Your task to perform on an android device: turn pop-ups off in chrome Image 0: 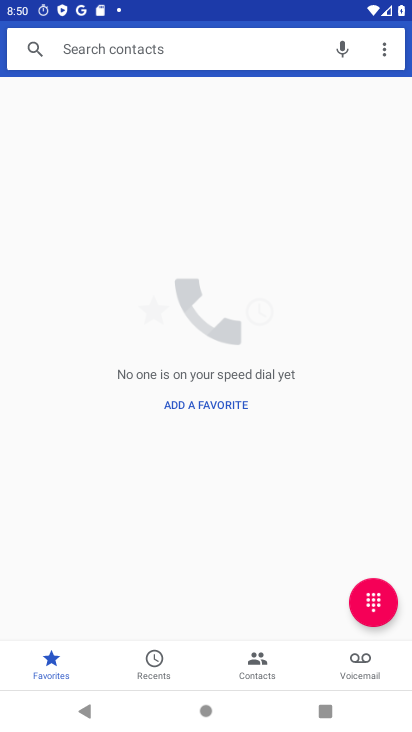
Step 0: press back button
Your task to perform on an android device: turn pop-ups off in chrome Image 1: 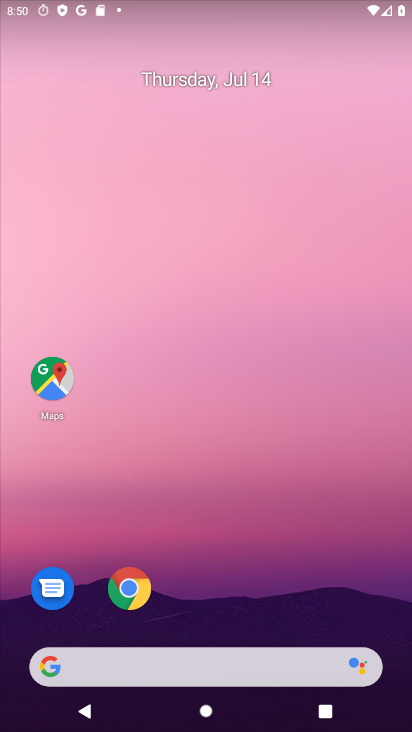
Step 1: drag from (278, 623) to (236, 240)
Your task to perform on an android device: turn pop-ups off in chrome Image 2: 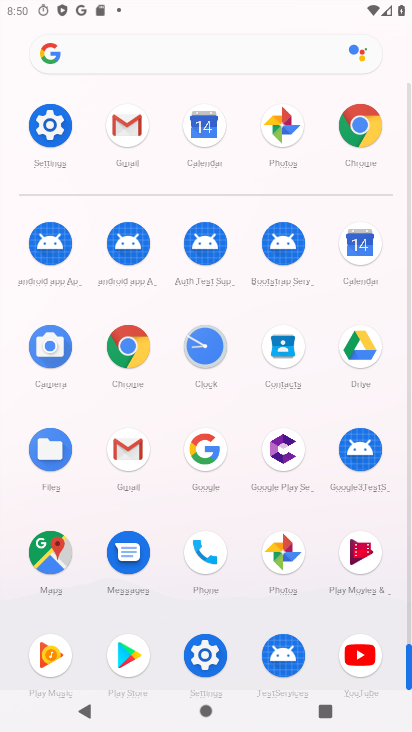
Step 2: click (340, 137)
Your task to perform on an android device: turn pop-ups off in chrome Image 3: 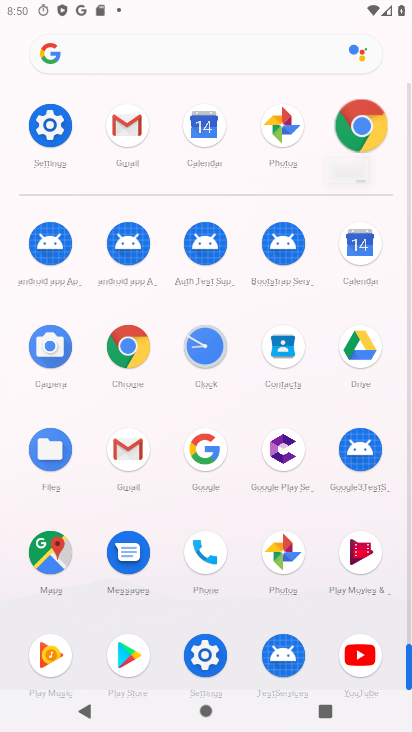
Step 3: click (351, 127)
Your task to perform on an android device: turn pop-ups off in chrome Image 4: 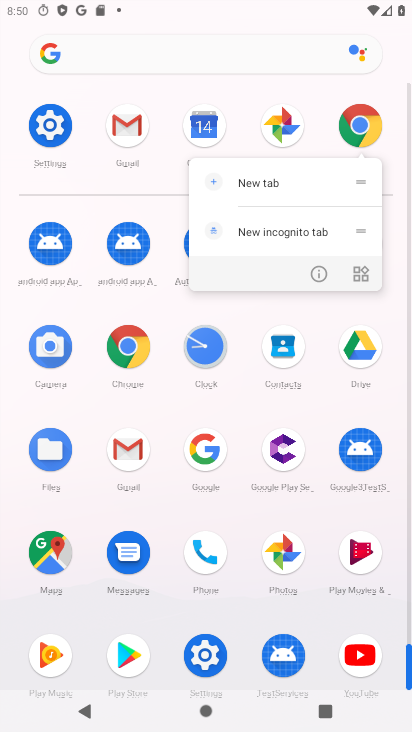
Step 4: click (366, 137)
Your task to perform on an android device: turn pop-ups off in chrome Image 5: 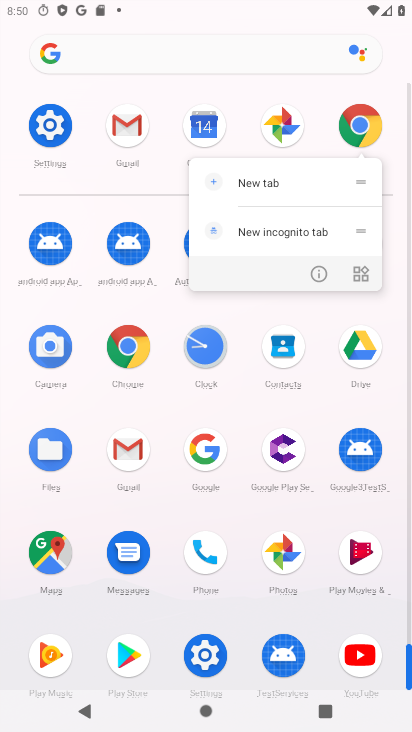
Step 5: click (367, 128)
Your task to perform on an android device: turn pop-ups off in chrome Image 6: 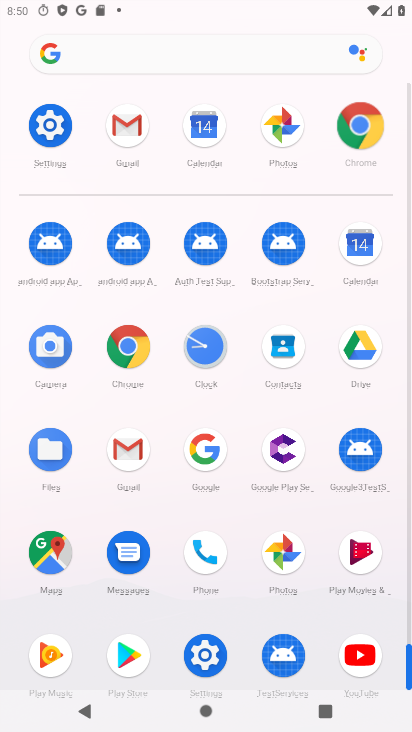
Step 6: click (367, 128)
Your task to perform on an android device: turn pop-ups off in chrome Image 7: 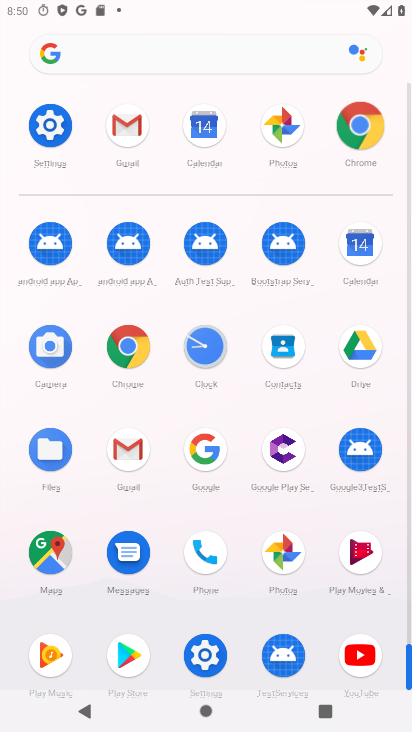
Step 7: click (374, 125)
Your task to perform on an android device: turn pop-ups off in chrome Image 8: 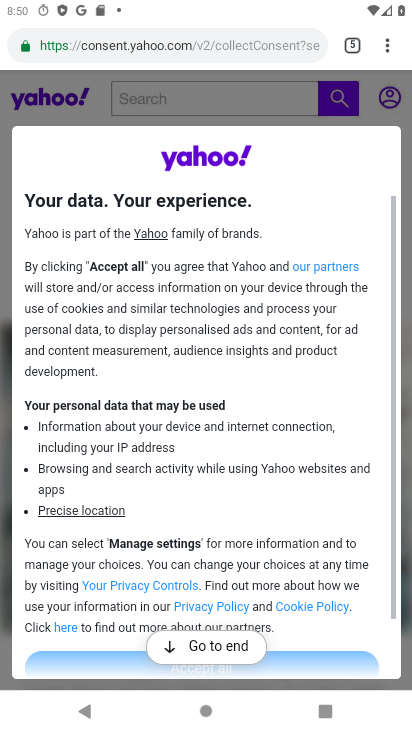
Step 8: drag from (391, 48) to (215, 550)
Your task to perform on an android device: turn pop-ups off in chrome Image 9: 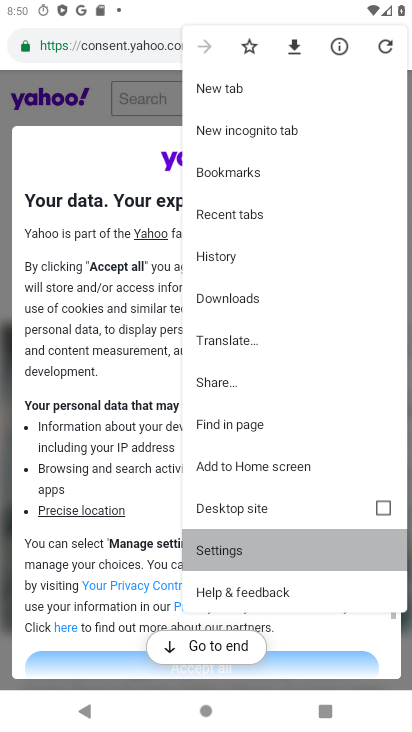
Step 9: click (210, 544)
Your task to perform on an android device: turn pop-ups off in chrome Image 10: 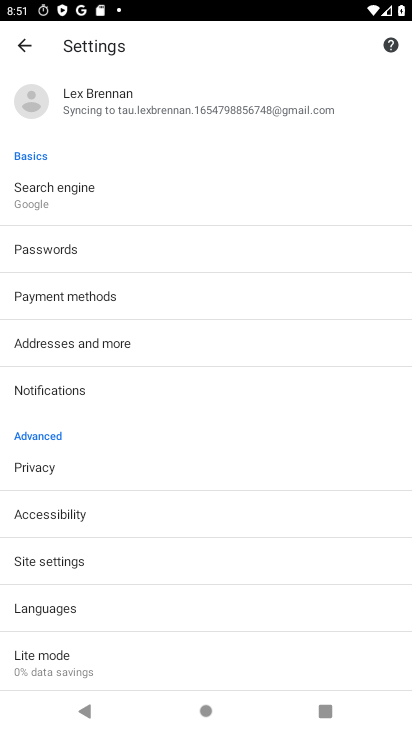
Step 10: click (42, 558)
Your task to perform on an android device: turn pop-ups off in chrome Image 11: 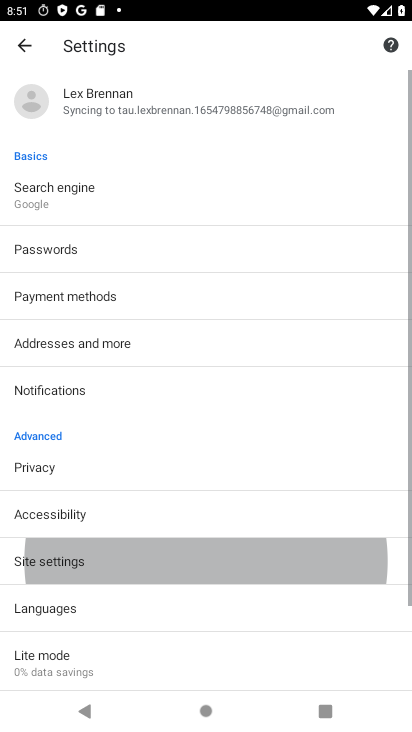
Step 11: click (42, 558)
Your task to perform on an android device: turn pop-ups off in chrome Image 12: 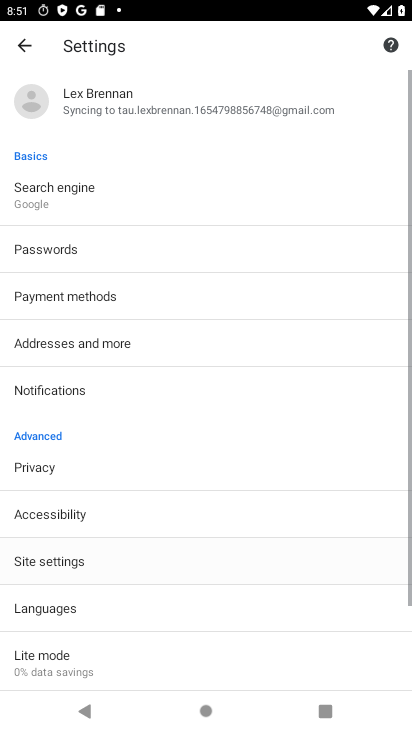
Step 12: click (51, 554)
Your task to perform on an android device: turn pop-ups off in chrome Image 13: 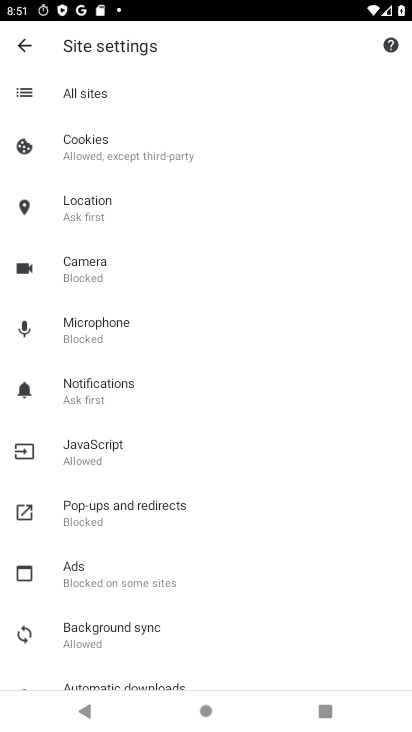
Step 13: click (86, 506)
Your task to perform on an android device: turn pop-ups off in chrome Image 14: 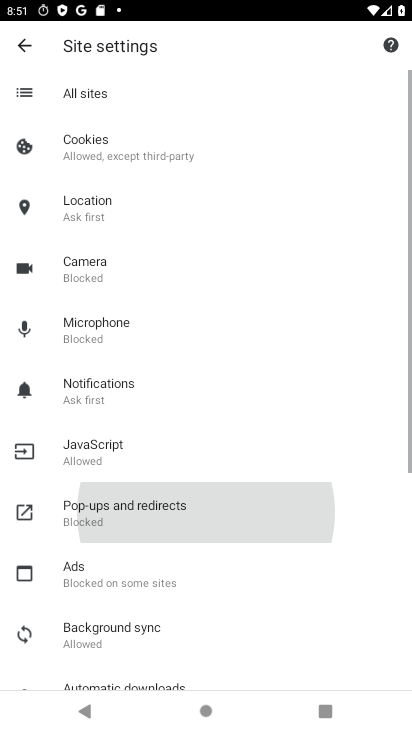
Step 14: click (86, 506)
Your task to perform on an android device: turn pop-ups off in chrome Image 15: 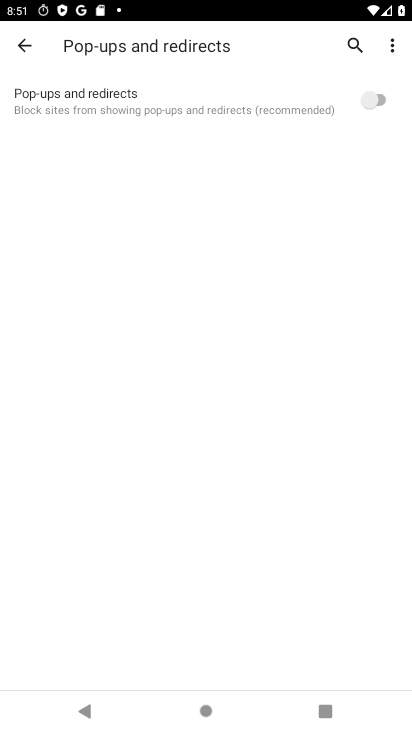
Step 15: task complete